Your task to perform on an android device: turn on airplane mode Image 0: 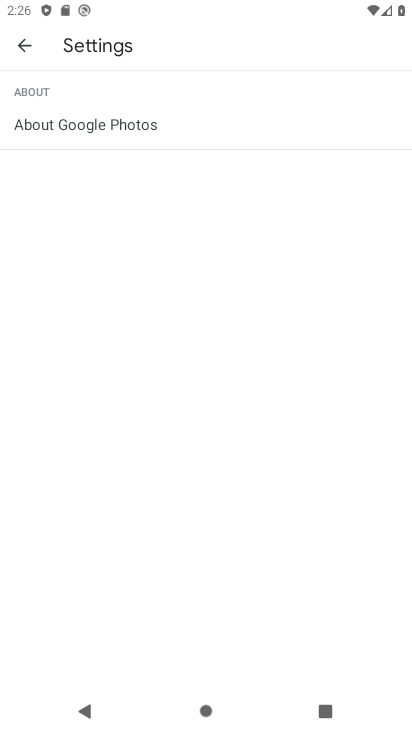
Step 0: press home button
Your task to perform on an android device: turn on airplane mode Image 1: 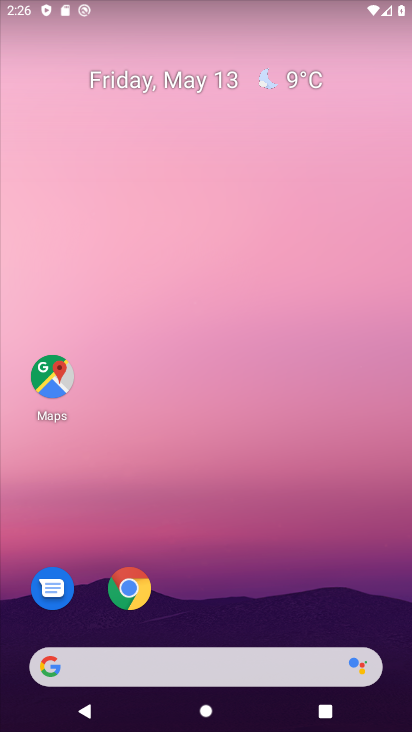
Step 1: drag from (237, 6) to (247, 378)
Your task to perform on an android device: turn on airplane mode Image 2: 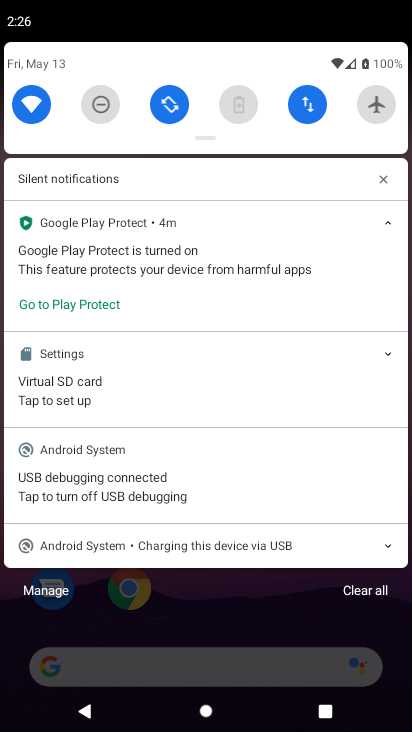
Step 2: click (378, 97)
Your task to perform on an android device: turn on airplane mode Image 3: 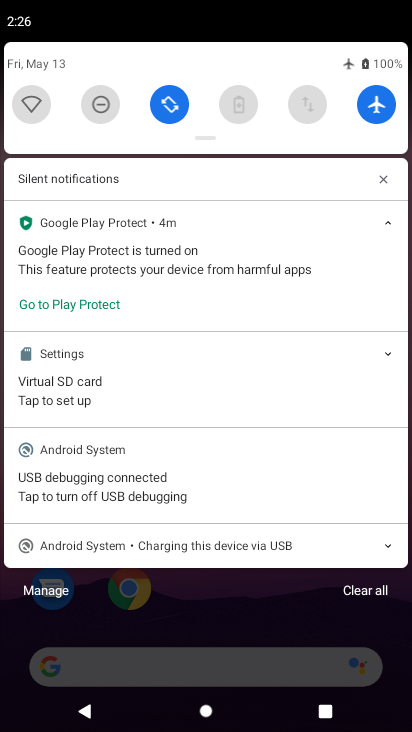
Step 3: task complete